Your task to perform on an android device: check the backup settings in the google photos Image 0: 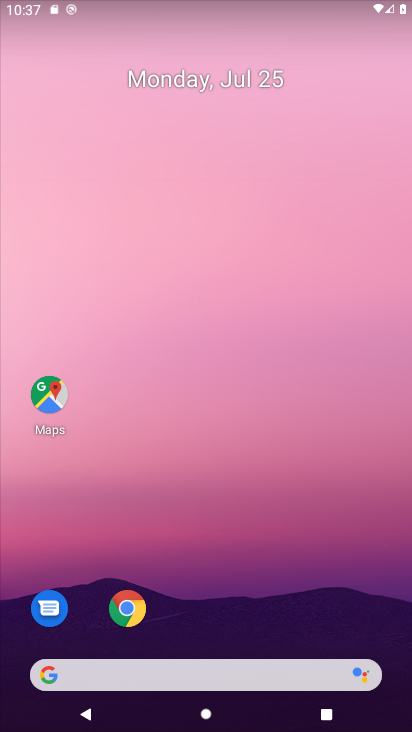
Step 0: drag from (238, 586) to (169, 149)
Your task to perform on an android device: check the backup settings in the google photos Image 1: 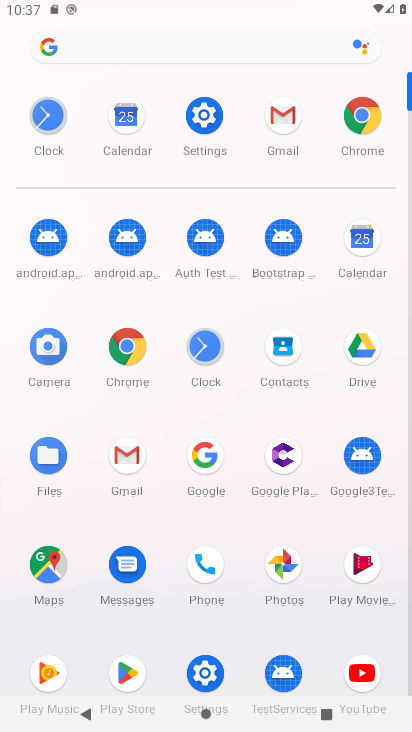
Step 1: click (288, 559)
Your task to perform on an android device: check the backup settings in the google photos Image 2: 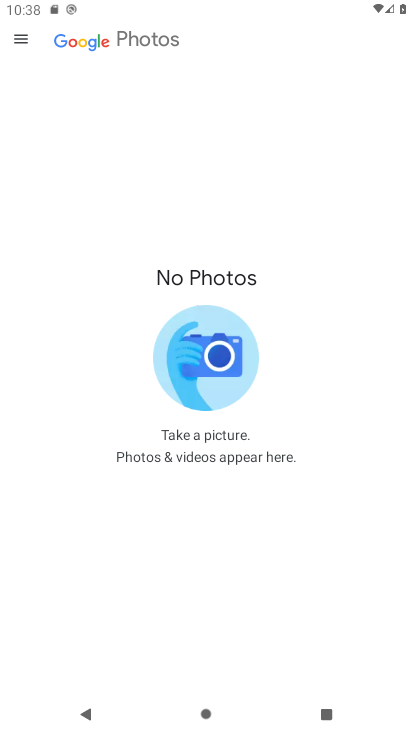
Step 2: click (20, 29)
Your task to perform on an android device: check the backup settings in the google photos Image 3: 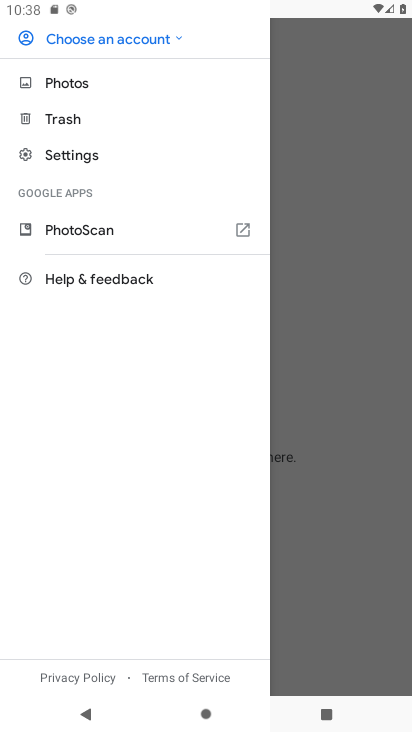
Step 3: click (61, 147)
Your task to perform on an android device: check the backup settings in the google photos Image 4: 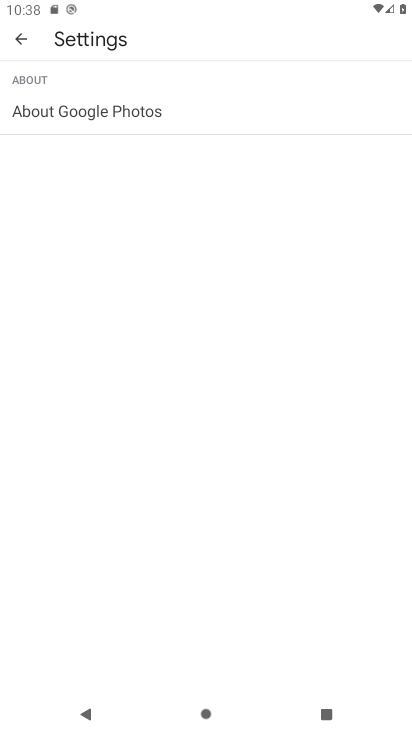
Step 4: click (17, 36)
Your task to perform on an android device: check the backup settings in the google photos Image 5: 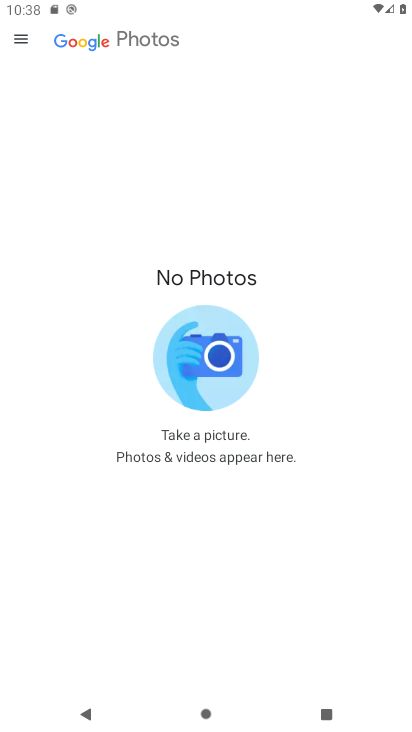
Step 5: click (23, 45)
Your task to perform on an android device: check the backup settings in the google photos Image 6: 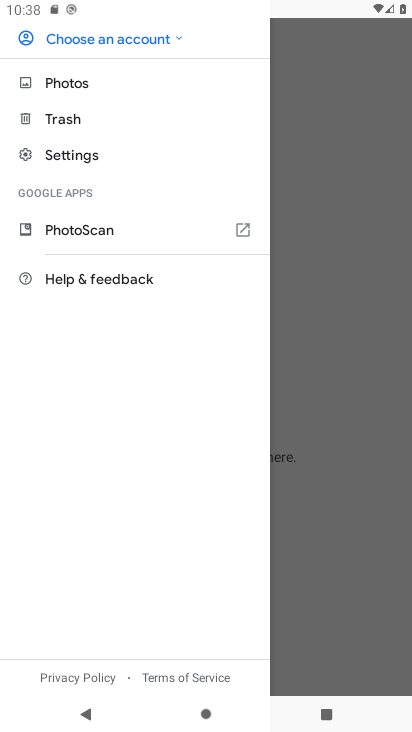
Step 6: click (60, 159)
Your task to perform on an android device: check the backup settings in the google photos Image 7: 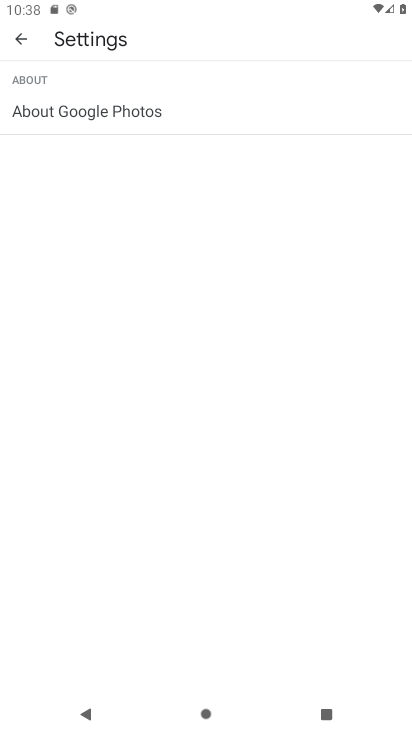
Step 7: click (52, 104)
Your task to perform on an android device: check the backup settings in the google photos Image 8: 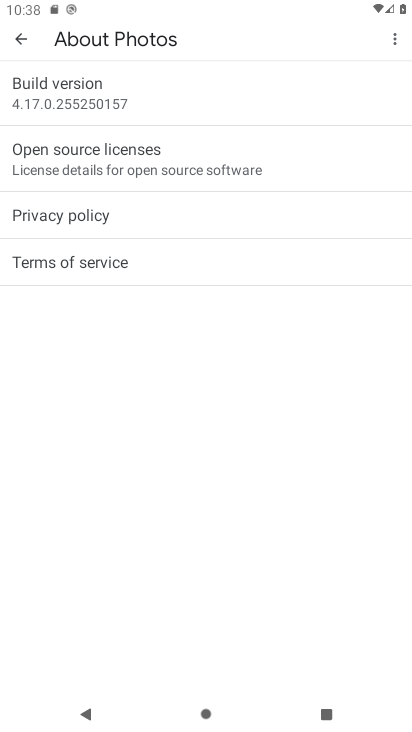
Step 8: click (27, 38)
Your task to perform on an android device: check the backup settings in the google photos Image 9: 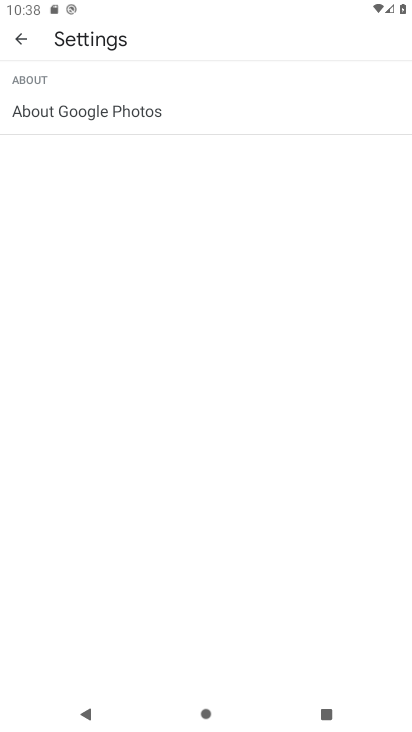
Step 9: click (27, 38)
Your task to perform on an android device: check the backup settings in the google photos Image 10: 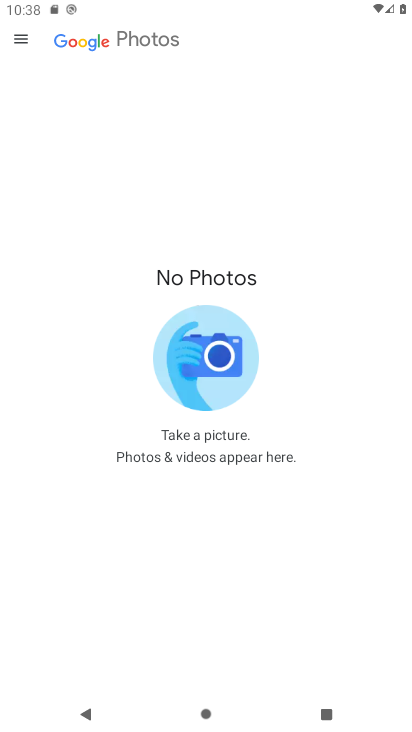
Step 10: click (185, 475)
Your task to perform on an android device: check the backup settings in the google photos Image 11: 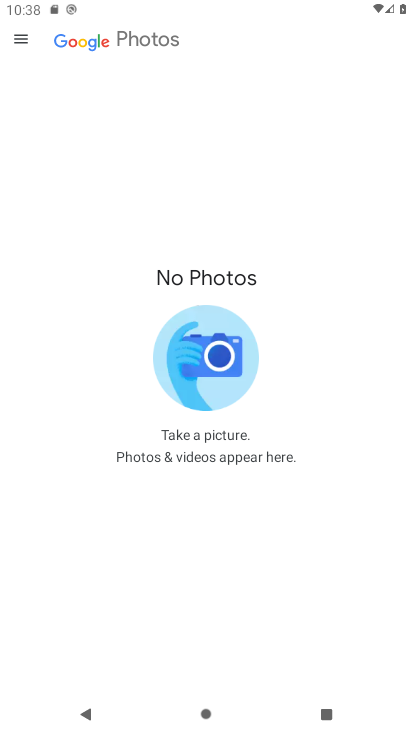
Step 11: drag from (138, 224) to (222, 350)
Your task to perform on an android device: check the backup settings in the google photos Image 12: 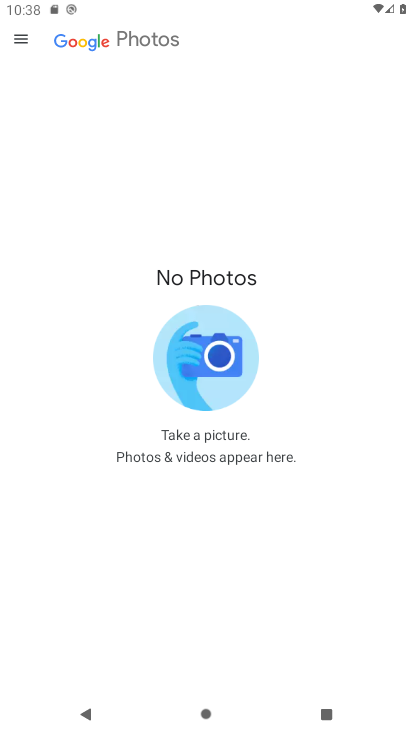
Step 12: click (236, 314)
Your task to perform on an android device: check the backup settings in the google photos Image 13: 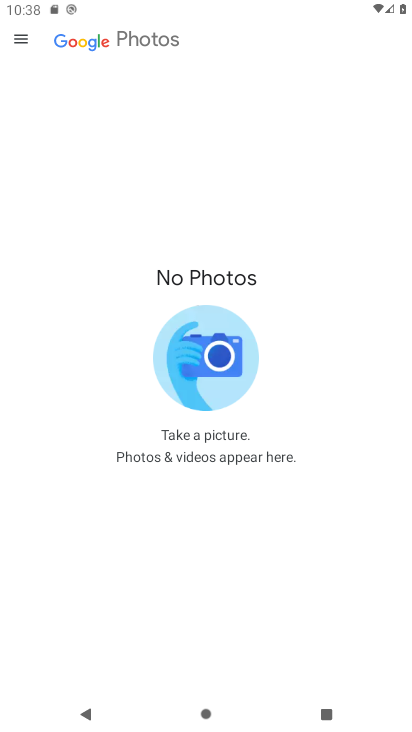
Step 13: press back button
Your task to perform on an android device: check the backup settings in the google photos Image 14: 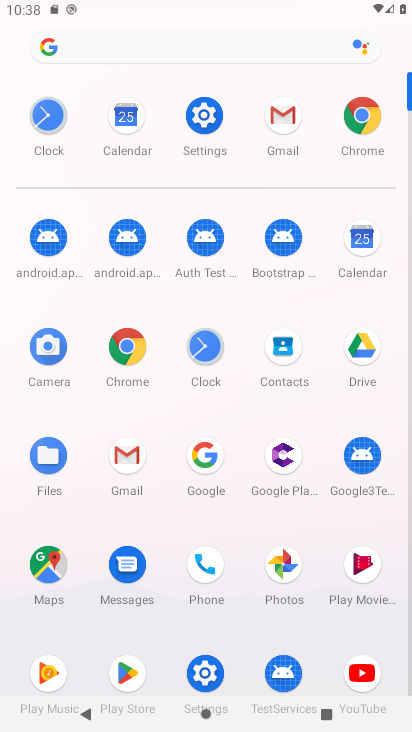
Step 14: click (289, 562)
Your task to perform on an android device: check the backup settings in the google photos Image 15: 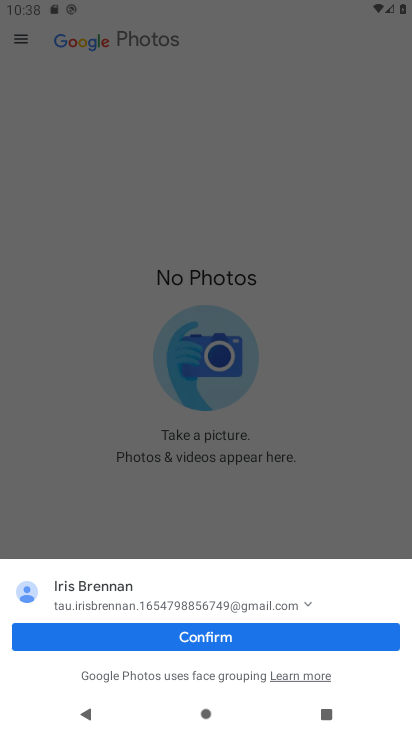
Step 15: click (37, 38)
Your task to perform on an android device: check the backup settings in the google photos Image 16: 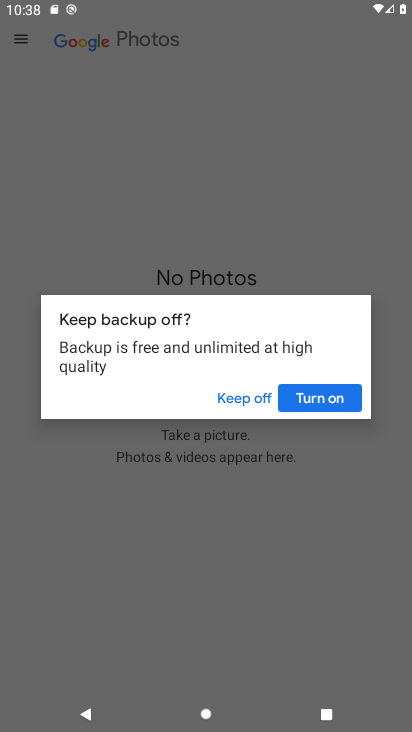
Step 16: click (320, 393)
Your task to perform on an android device: check the backup settings in the google photos Image 17: 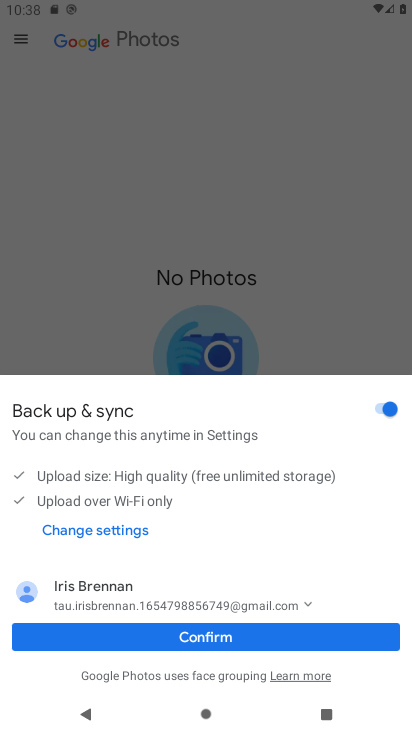
Step 17: click (207, 631)
Your task to perform on an android device: check the backup settings in the google photos Image 18: 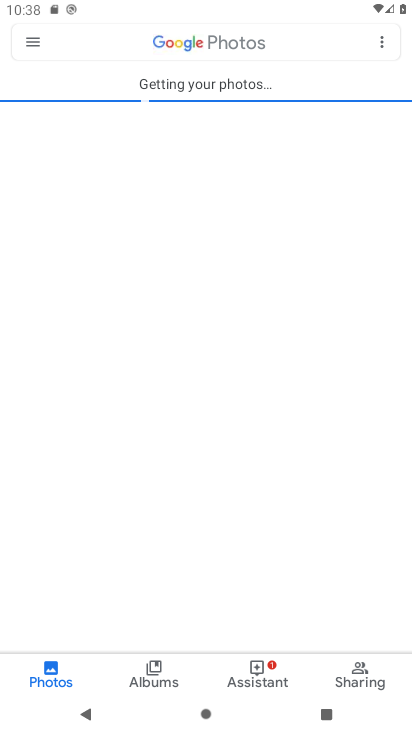
Step 18: click (34, 41)
Your task to perform on an android device: check the backup settings in the google photos Image 19: 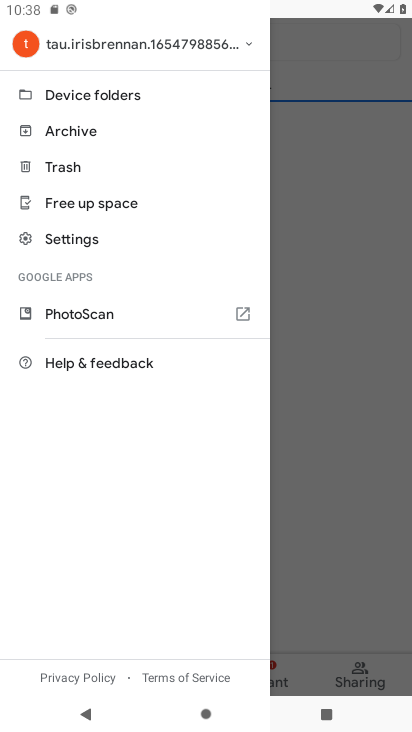
Step 19: click (79, 237)
Your task to perform on an android device: check the backup settings in the google photos Image 20: 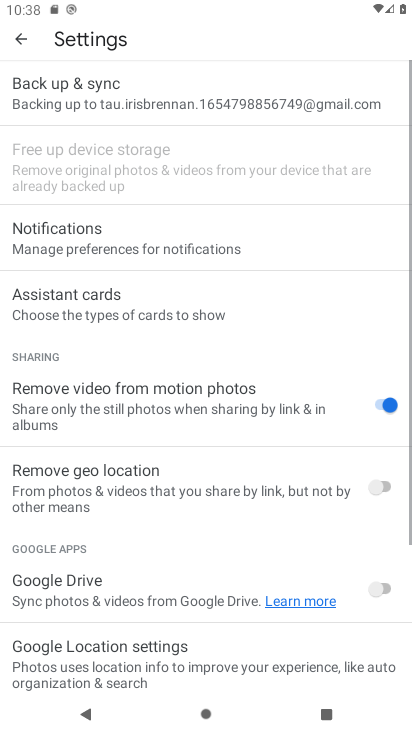
Step 20: click (83, 95)
Your task to perform on an android device: check the backup settings in the google photos Image 21: 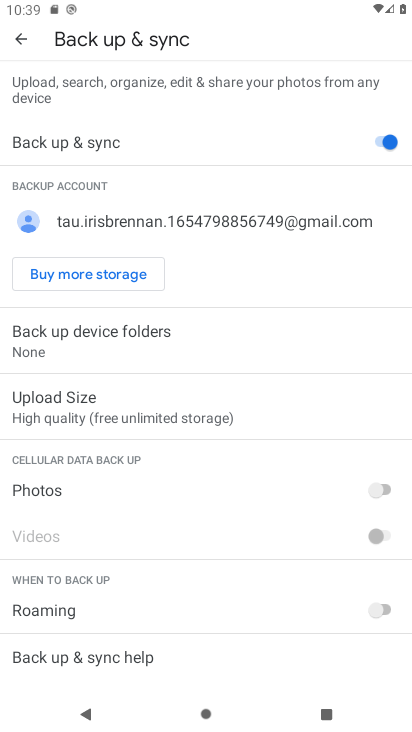
Step 21: task complete